Your task to perform on an android device: turn notification dots on Image 0: 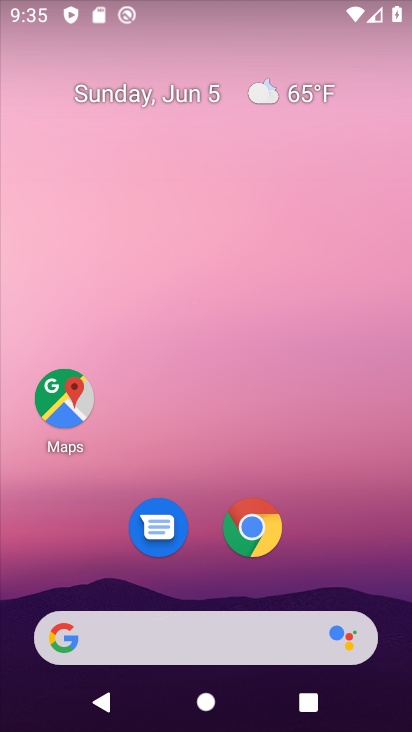
Step 0: drag from (243, 587) to (232, 49)
Your task to perform on an android device: turn notification dots on Image 1: 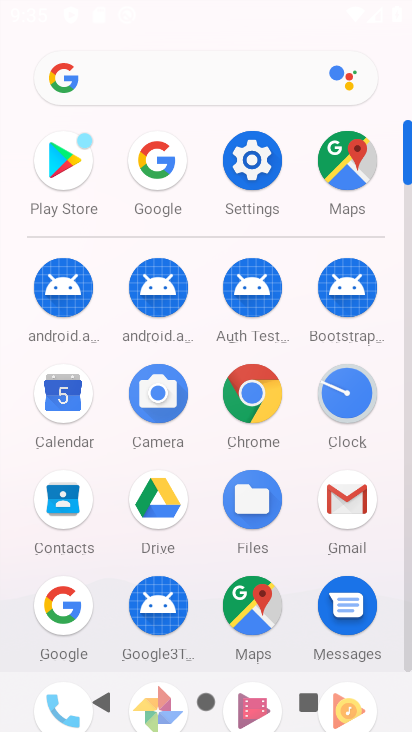
Step 1: click (240, 191)
Your task to perform on an android device: turn notification dots on Image 2: 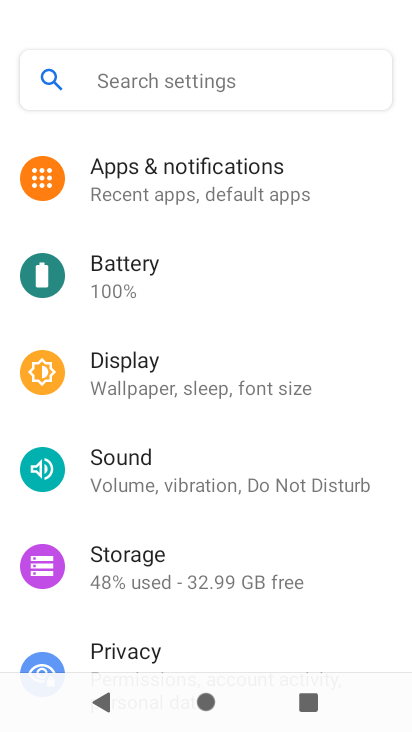
Step 2: click (240, 187)
Your task to perform on an android device: turn notification dots on Image 3: 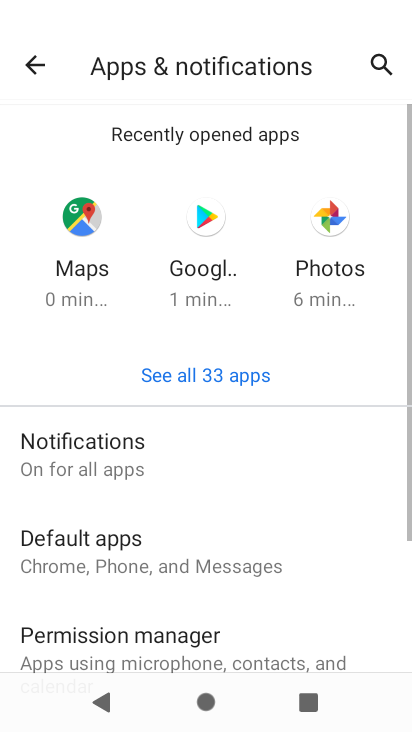
Step 3: click (112, 450)
Your task to perform on an android device: turn notification dots on Image 4: 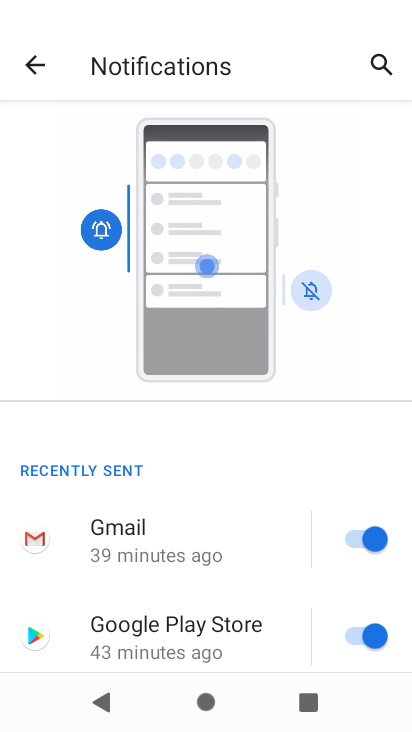
Step 4: drag from (167, 605) to (231, 128)
Your task to perform on an android device: turn notification dots on Image 5: 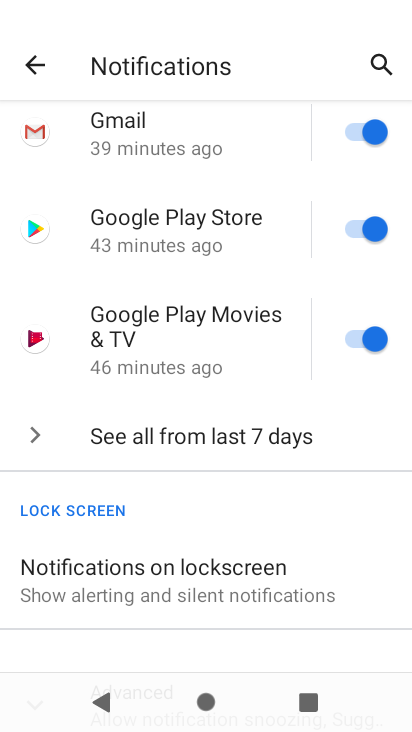
Step 5: drag from (153, 581) to (211, 66)
Your task to perform on an android device: turn notification dots on Image 6: 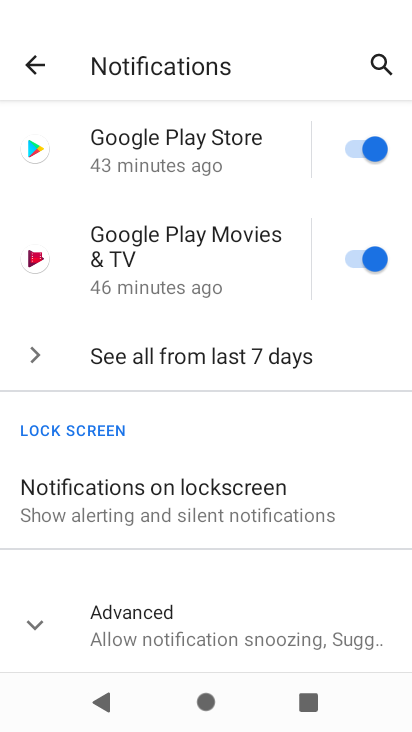
Step 6: click (140, 631)
Your task to perform on an android device: turn notification dots on Image 7: 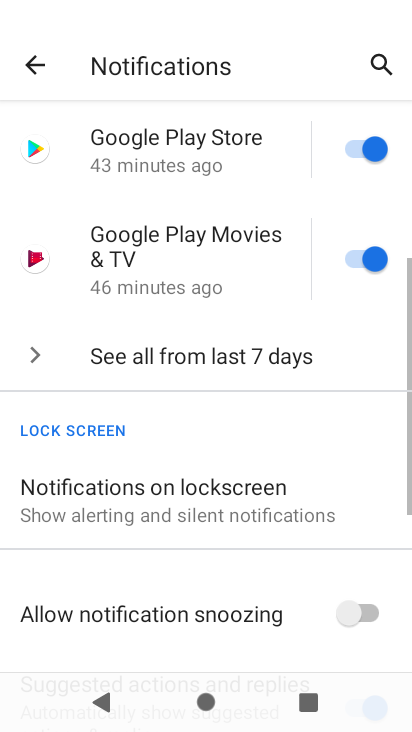
Step 7: drag from (205, 615) to (210, 223)
Your task to perform on an android device: turn notification dots on Image 8: 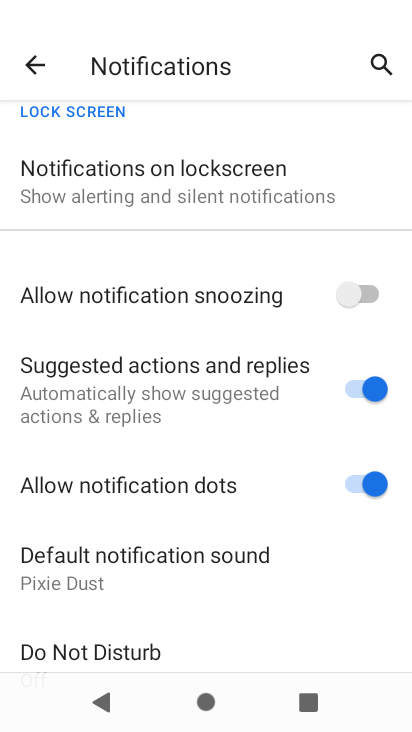
Step 8: click (365, 478)
Your task to perform on an android device: turn notification dots on Image 9: 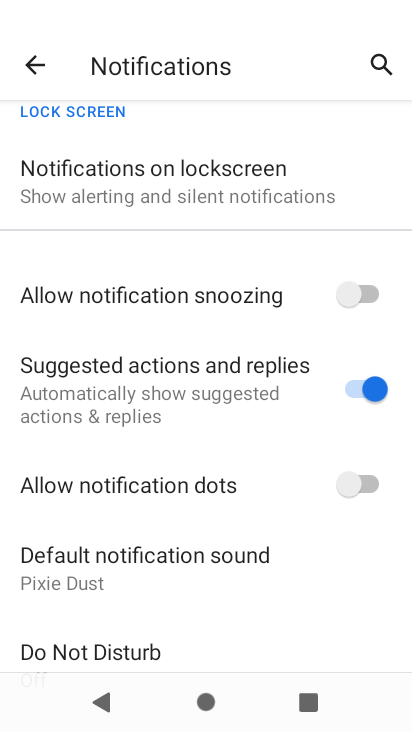
Step 9: click (362, 487)
Your task to perform on an android device: turn notification dots on Image 10: 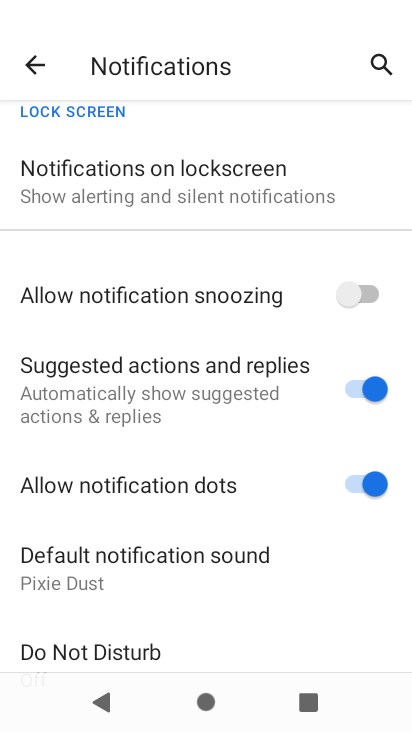
Step 10: task complete